Your task to perform on an android device: check out phone information Image 0: 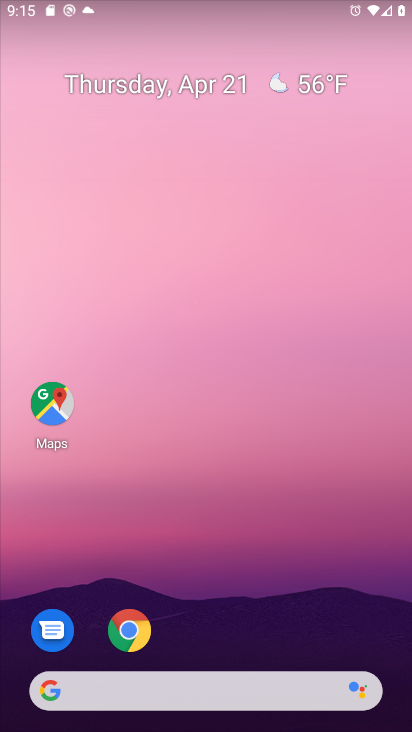
Step 0: drag from (169, 633) to (268, 128)
Your task to perform on an android device: check out phone information Image 1: 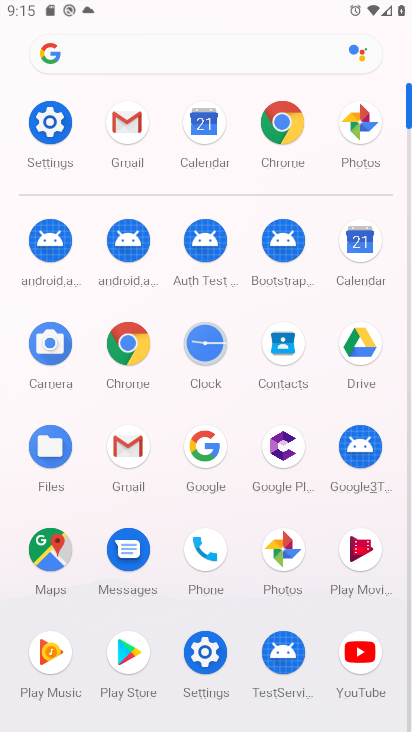
Step 1: click (49, 133)
Your task to perform on an android device: check out phone information Image 2: 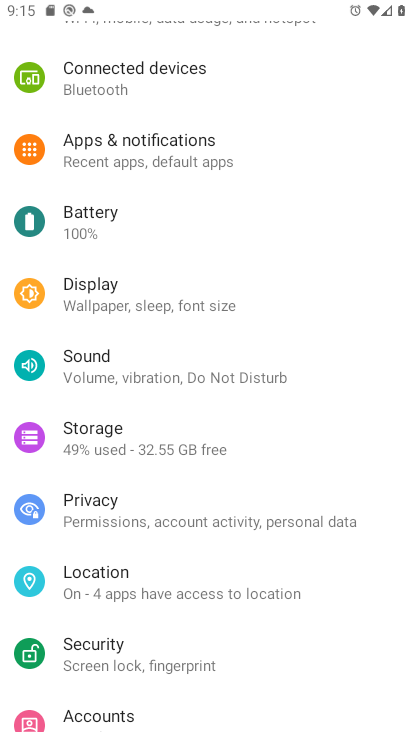
Step 2: drag from (104, 612) to (185, 91)
Your task to perform on an android device: check out phone information Image 3: 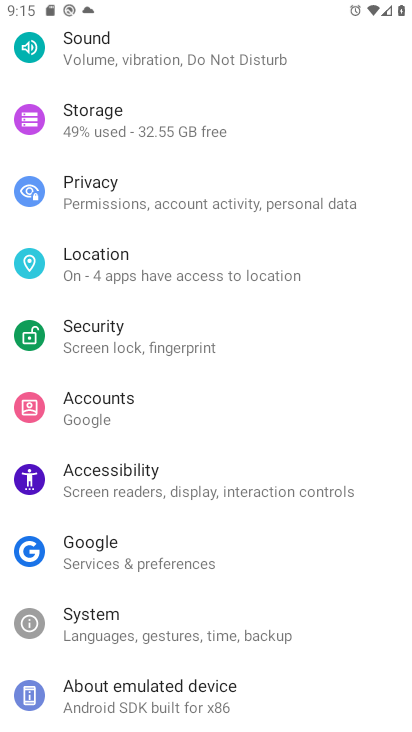
Step 3: drag from (163, 609) to (180, 283)
Your task to perform on an android device: check out phone information Image 4: 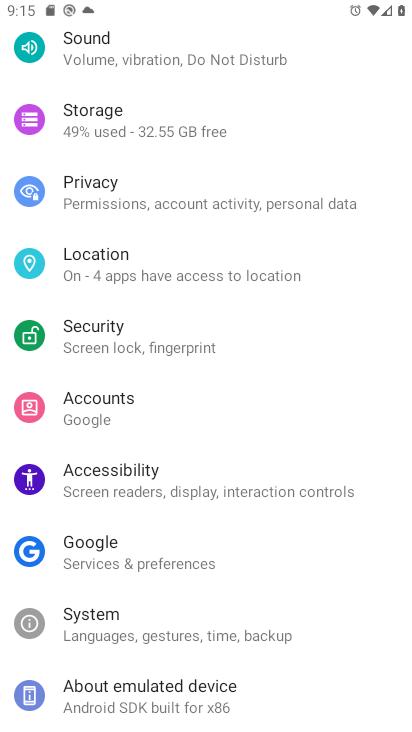
Step 4: click (113, 693)
Your task to perform on an android device: check out phone information Image 5: 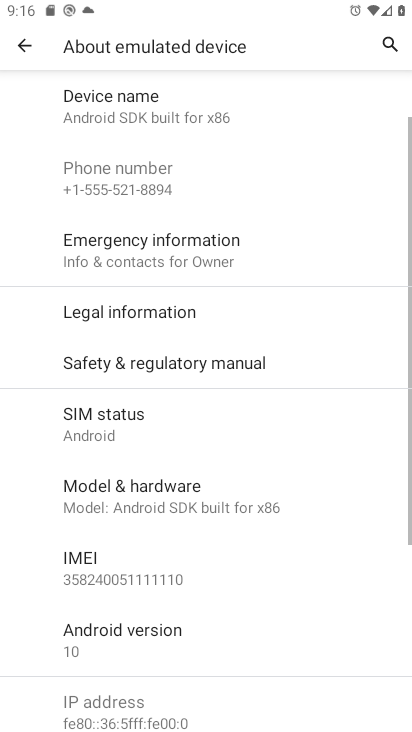
Step 5: task complete